Your task to perform on an android device: change the upload size in google photos Image 0: 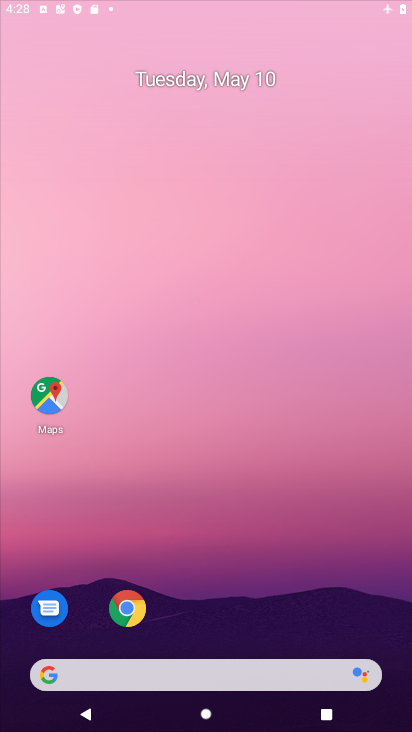
Step 0: drag from (381, 598) to (274, 87)
Your task to perform on an android device: change the upload size in google photos Image 1: 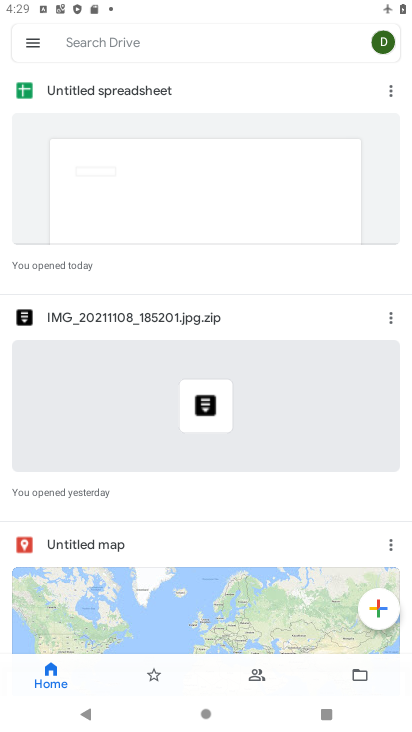
Step 1: press home button
Your task to perform on an android device: change the upload size in google photos Image 2: 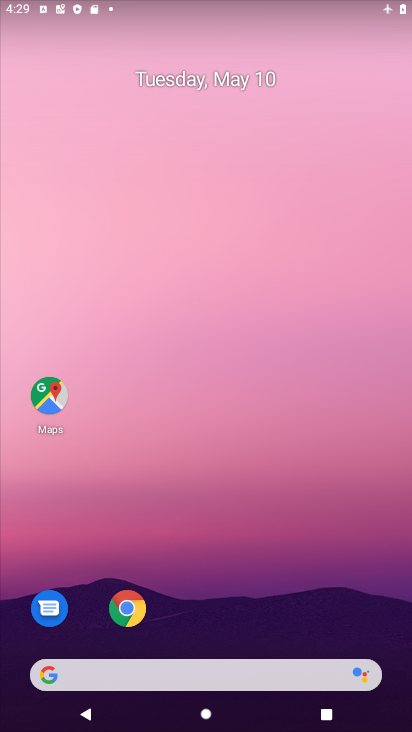
Step 2: drag from (380, 638) to (243, 111)
Your task to perform on an android device: change the upload size in google photos Image 3: 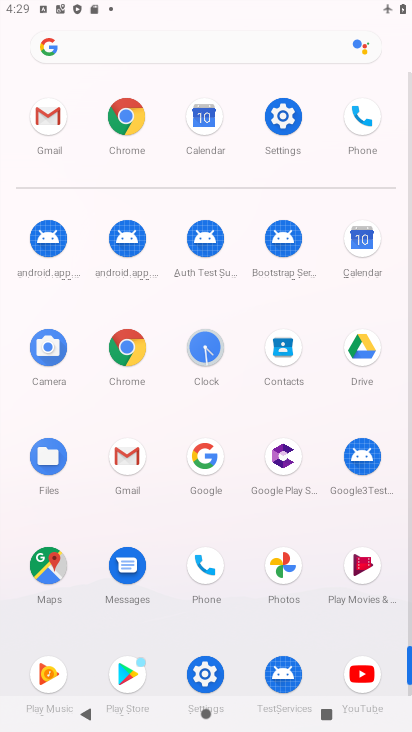
Step 3: click (410, 693)
Your task to perform on an android device: change the upload size in google photos Image 4: 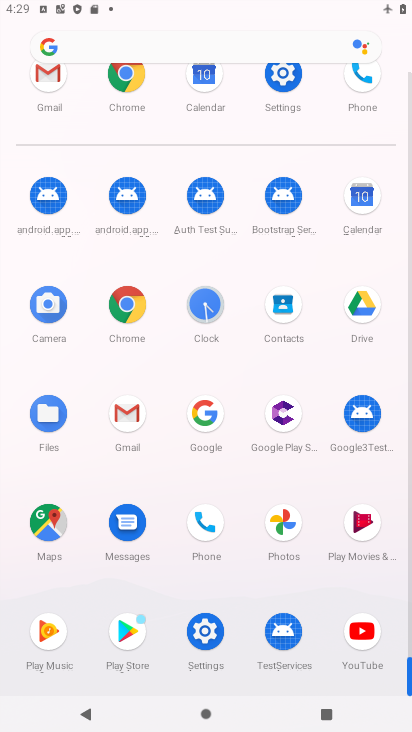
Step 4: click (277, 520)
Your task to perform on an android device: change the upload size in google photos Image 5: 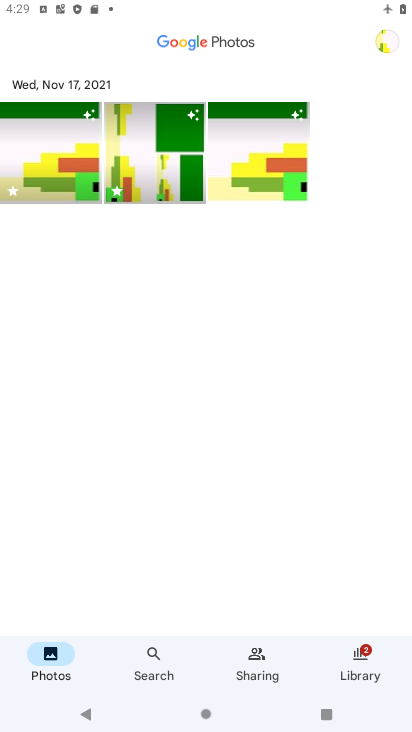
Step 5: click (385, 44)
Your task to perform on an android device: change the upload size in google photos Image 6: 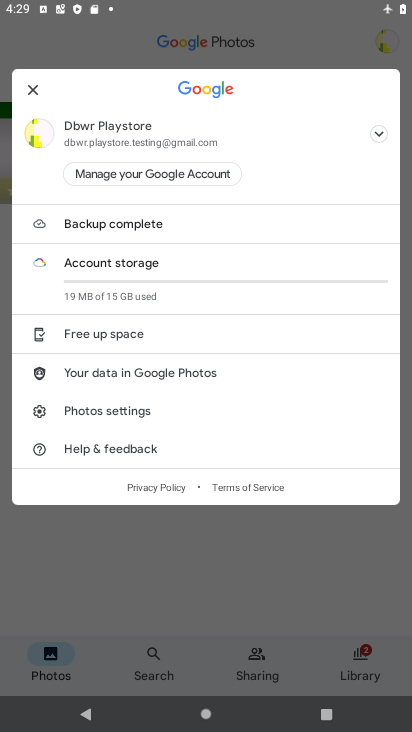
Step 6: click (85, 409)
Your task to perform on an android device: change the upload size in google photos Image 7: 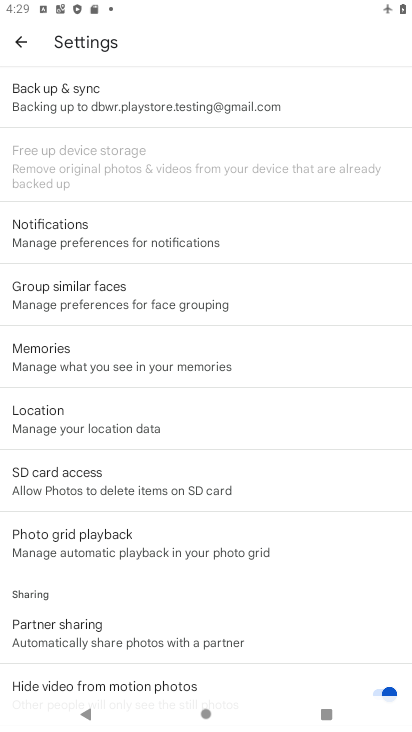
Step 7: click (47, 97)
Your task to perform on an android device: change the upload size in google photos Image 8: 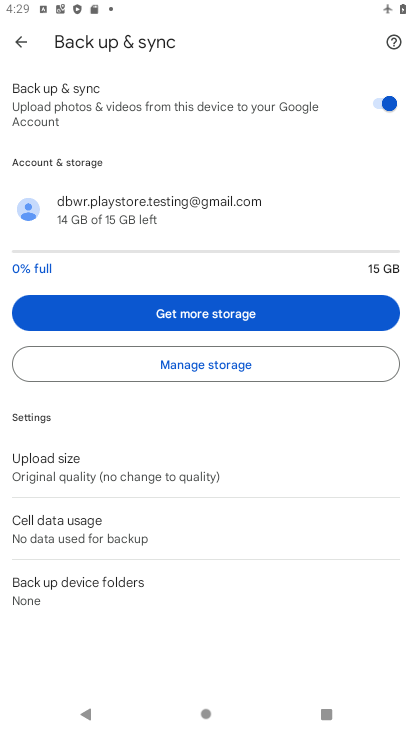
Step 8: click (53, 470)
Your task to perform on an android device: change the upload size in google photos Image 9: 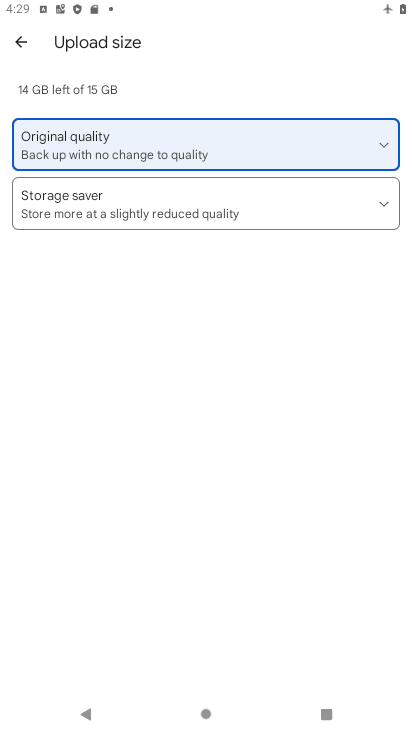
Step 9: click (98, 203)
Your task to perform on an android device: change the upload size in google photos Image 10: 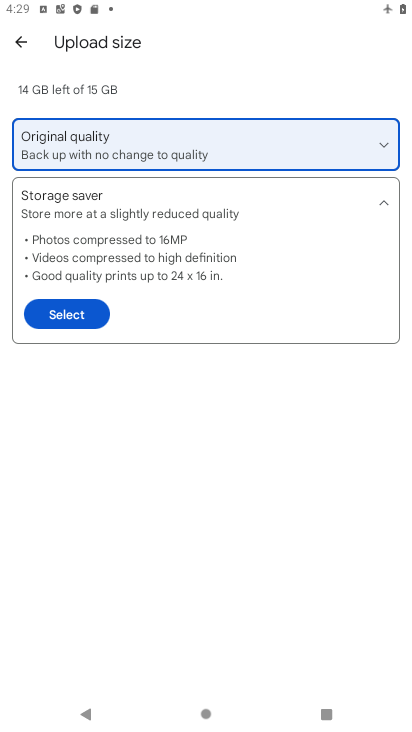
Step 10: click (70, 311)
Your task to perform on an android device: change the upload size in google photos Image 11: 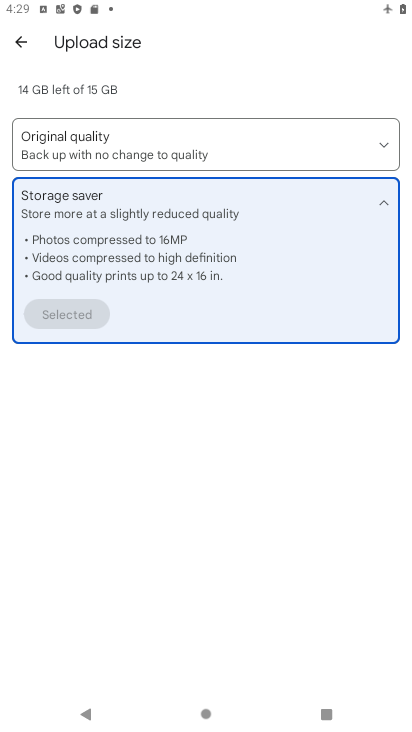
Step 11: task complete